Your task to perform on an android device: change alarm snooze length Image 0: 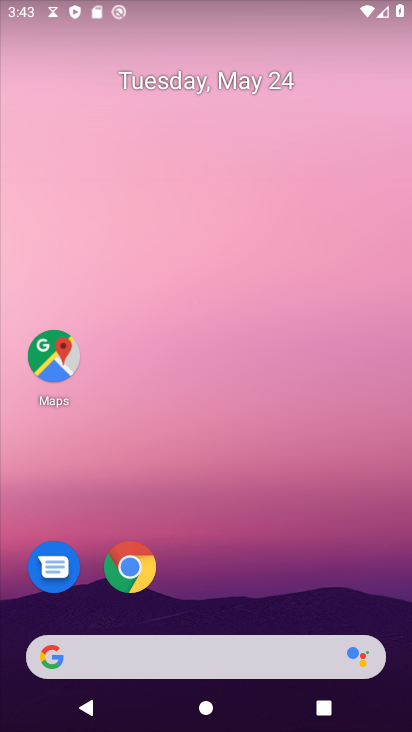
Step 0: drag from (205, 578) to (312, 13)
Your task to perform on an android device: change alarm snooze length Image 1: 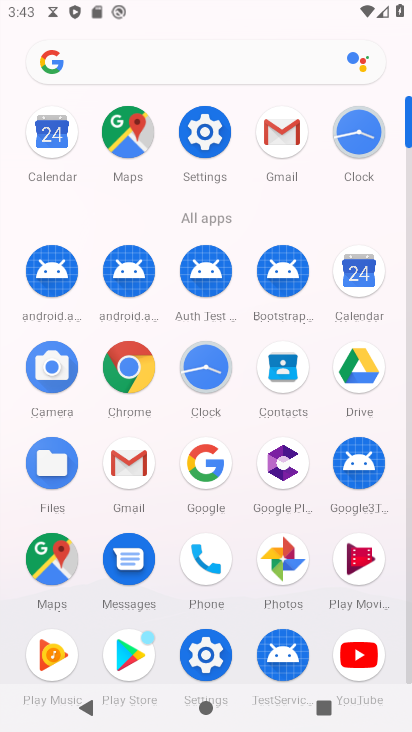
Step 1: click (210, 387)
Your task to perform on an android device: change alarm snooze length Image 2: 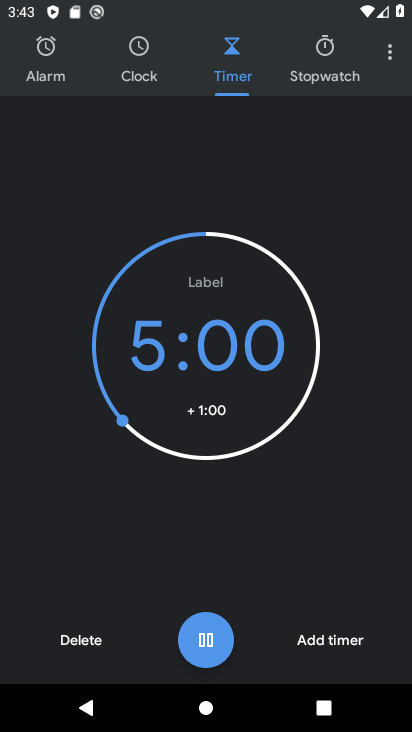
Step 2: click (82, 651)
Your task to perform on an android device: change alarm snooze length Image 3: 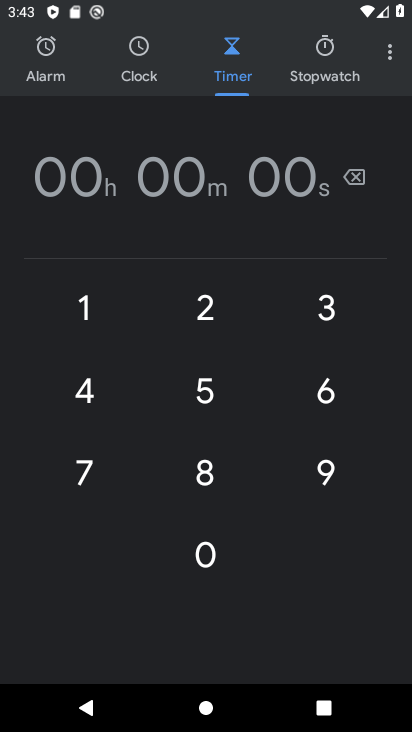
Step 3: click (390, 56)
Your task to perform on an android device: change alarm snooze length Image 4: 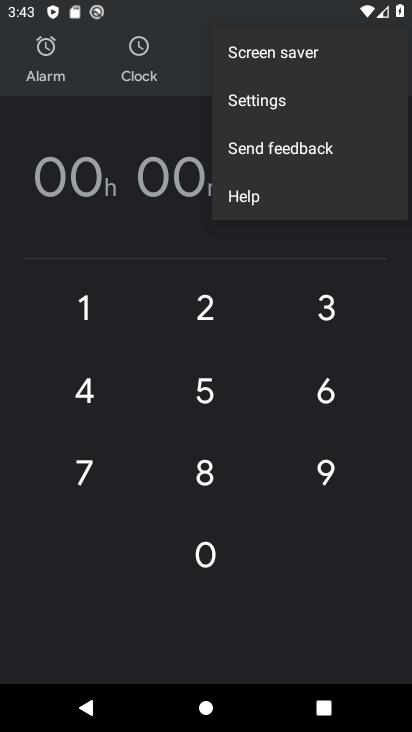
Step 4: click (268, 101)
Your task to perform on an android device: change alarm snooze length Image 5: 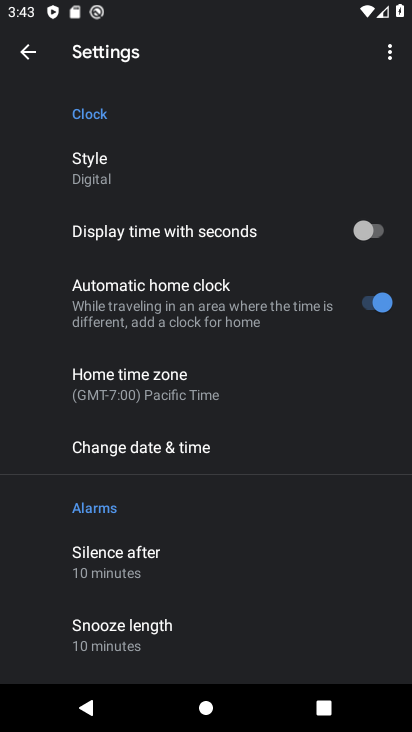
Step 5: drag from (156, 508) to (215, 261)
Your task to perform on an android device: change alarm snooze length Image 6: 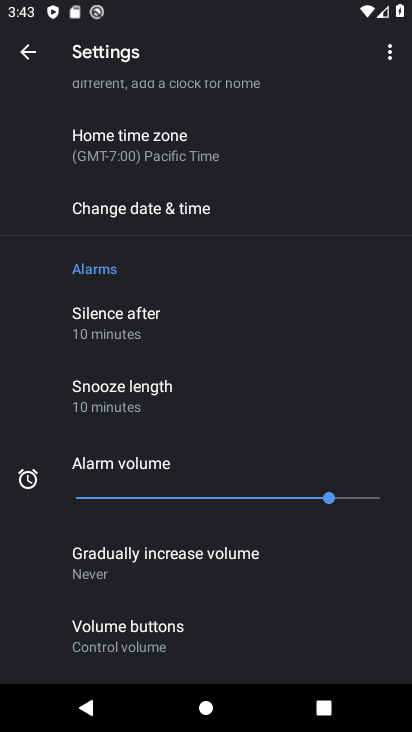
Step 6: click (121, 407)
Your task to perform on an android device: change alarm snooze length Image 7: 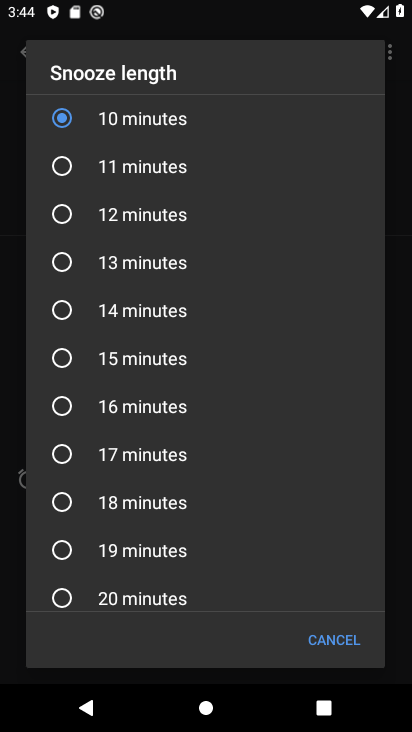
Step 7: click (123, 426)
Your task to perform on an android device: change alarm snooze length Image 8: 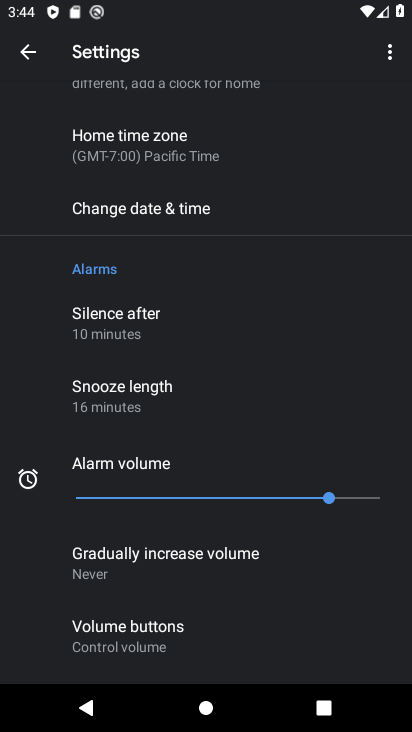
Step 8: task complete